Your task to perform on an android device: Open notification settings Image 0: 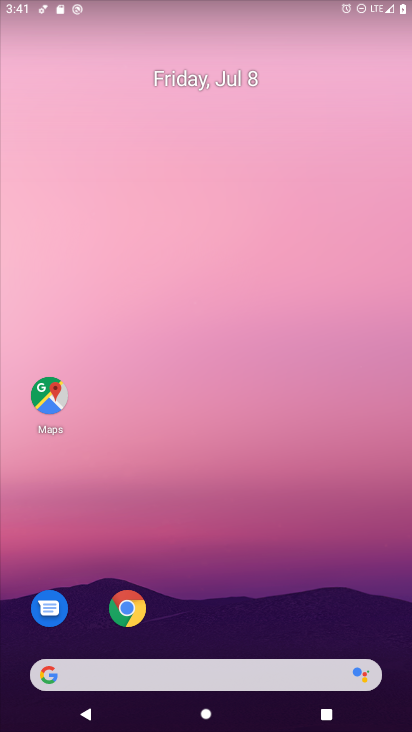
Step 0: drag from (326, 636) to (188, 0)
Your task to perform on an android device: Open notification settings Image 1: 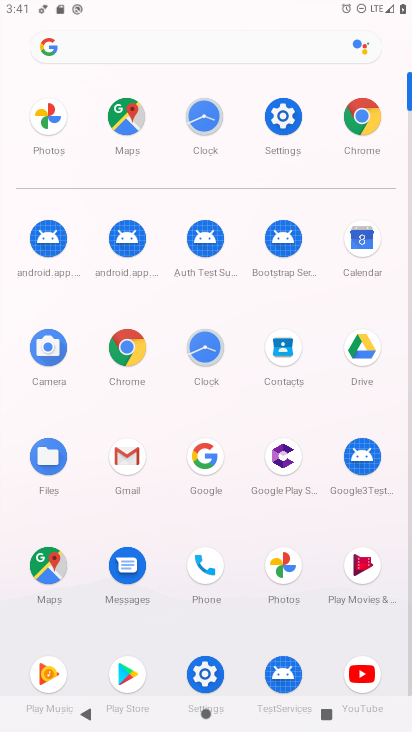
Step 1: click (294, 129)
Your task to perform on an android device: Open notification settings Image 2: 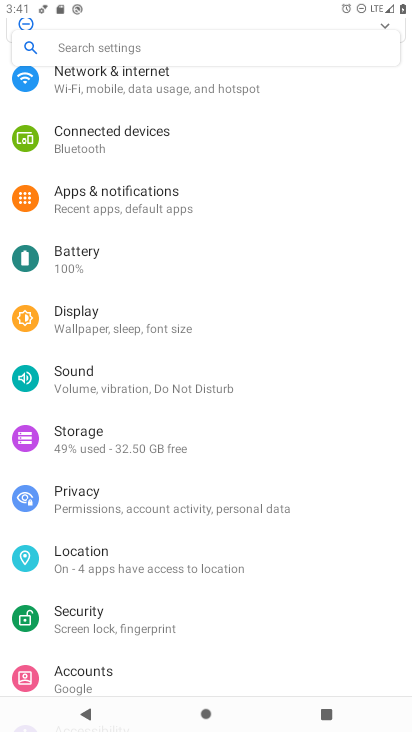
Step 2: click (173, 192)
Your task to perform on an android device: Open notification settings Image 3: 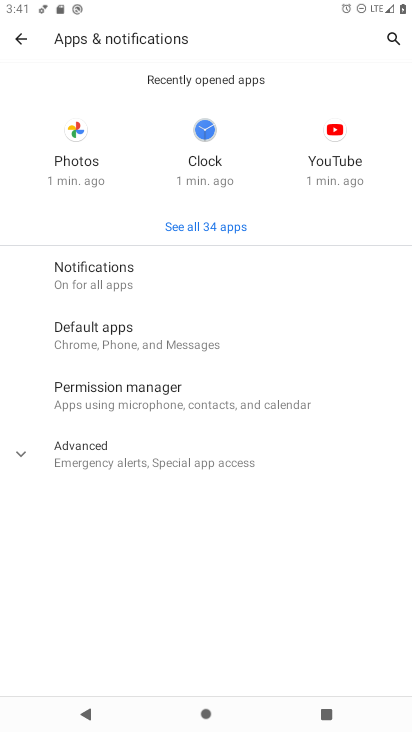
Step 3: click (139, 277)
Your task to perform on an android device: Open notification settings Image 4: 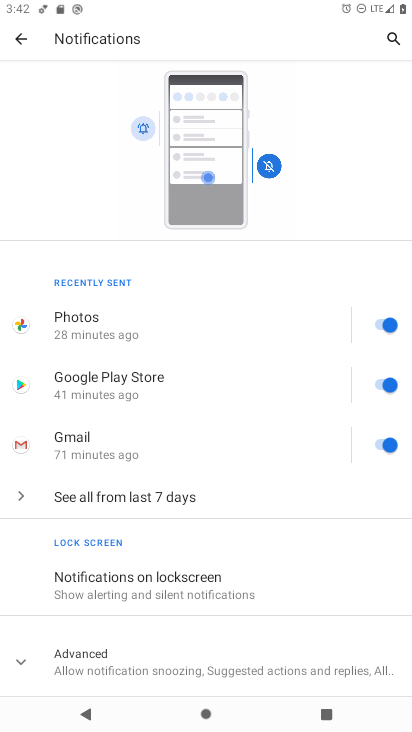
Step 4: task complete